Your task to perform on an android device: Play the last video I watched on Youtube Image 0: 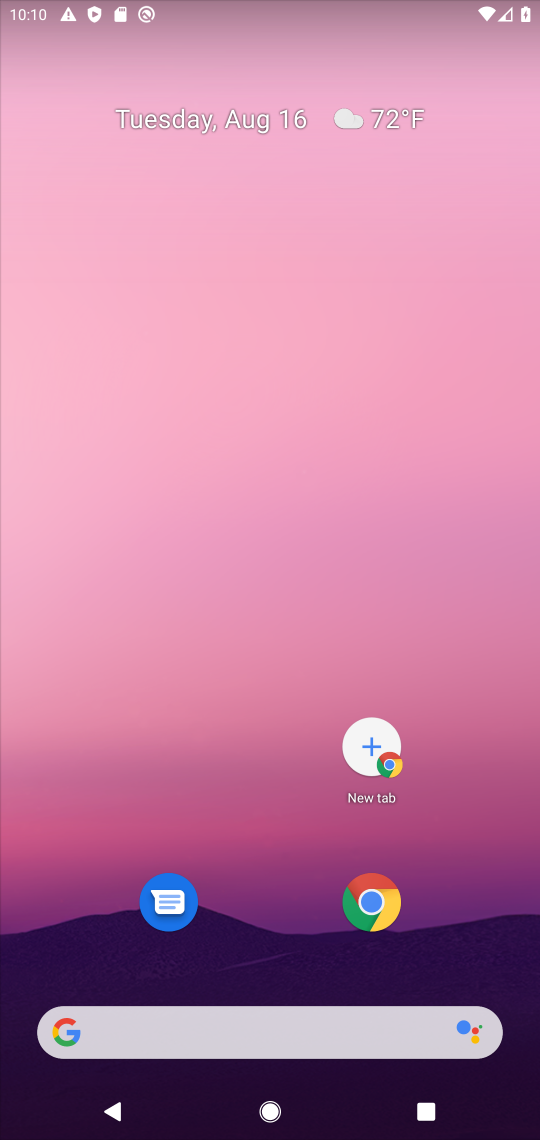
Step 0: drag from (263, 966) to (308, 373)
Your task to perform on an android device: Play the last video I watched on Youtube Image 1: 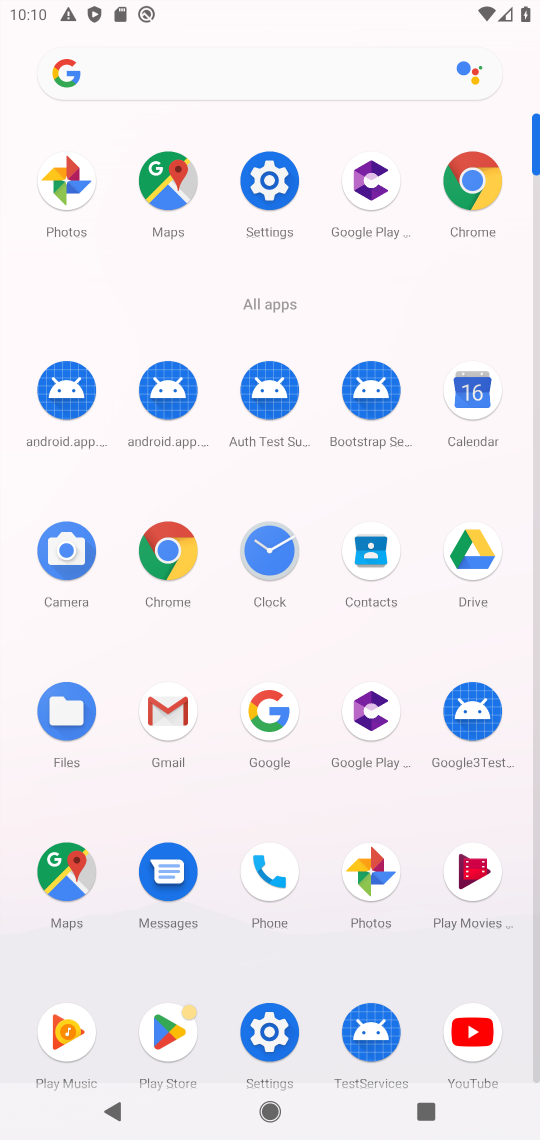
Step 1: drag from (408, 1040) to (466, 417)
Your task to perform on an android device: Play the last video I watched on Youtube Image 2: 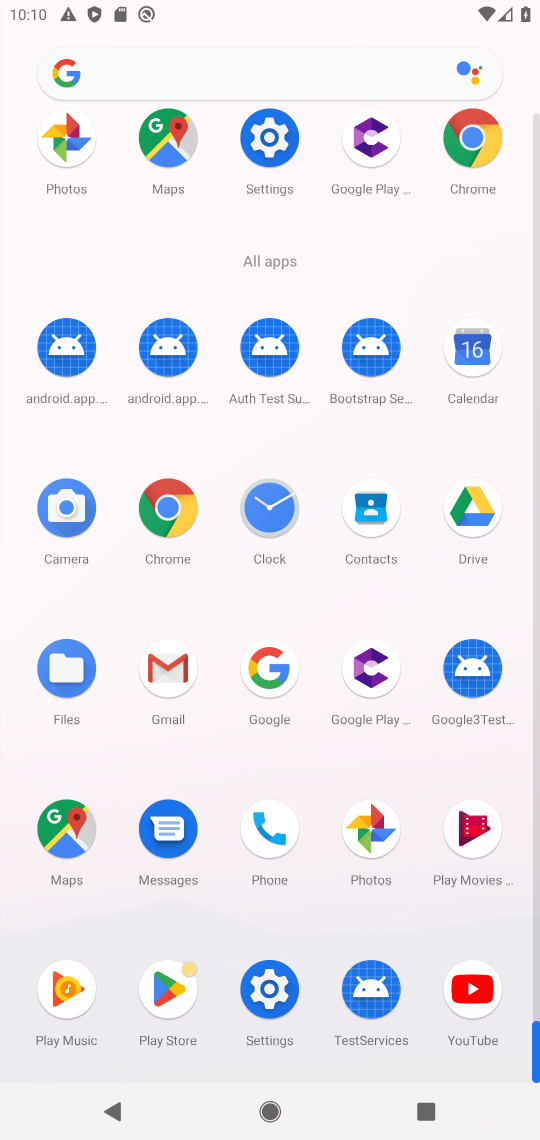
Step 2: click (469, 996)
Your task to perform on an android device: Play the last video I watched on Youtube Image 3: 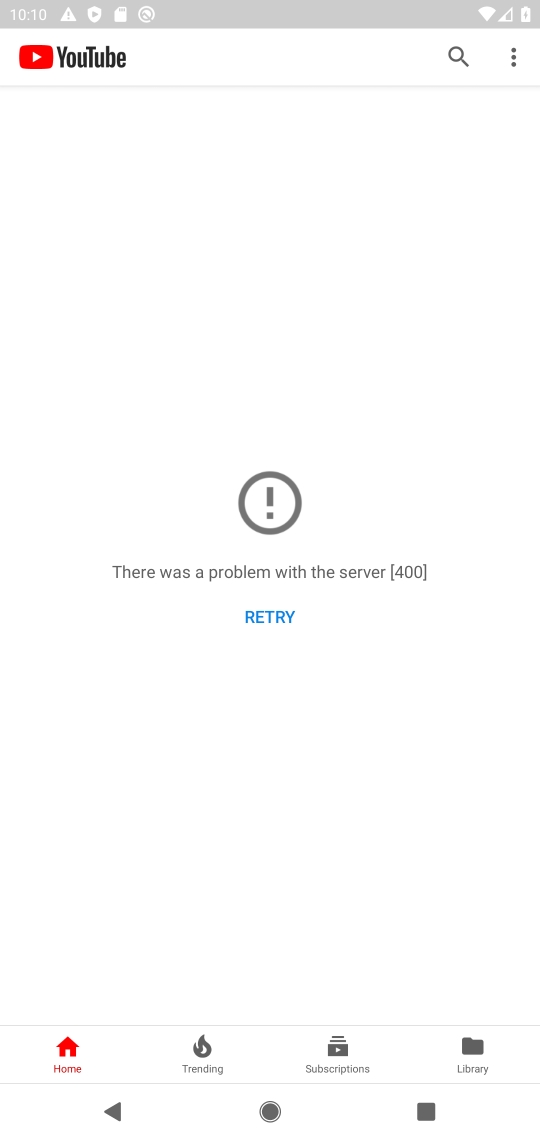
Step 3: click (277, 609)
Your task to perform on an android device: Play the last video I watched on Youtube Image 4: 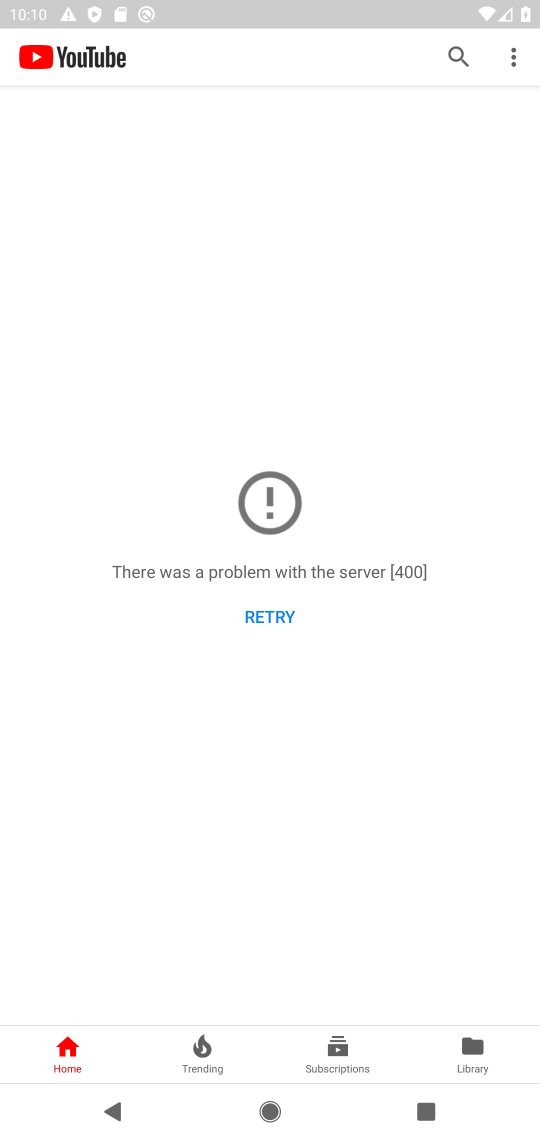
Step 4: click (475, 1061)
Your task to perform on an android device: Play the last video I watched on Youtube Image 5: 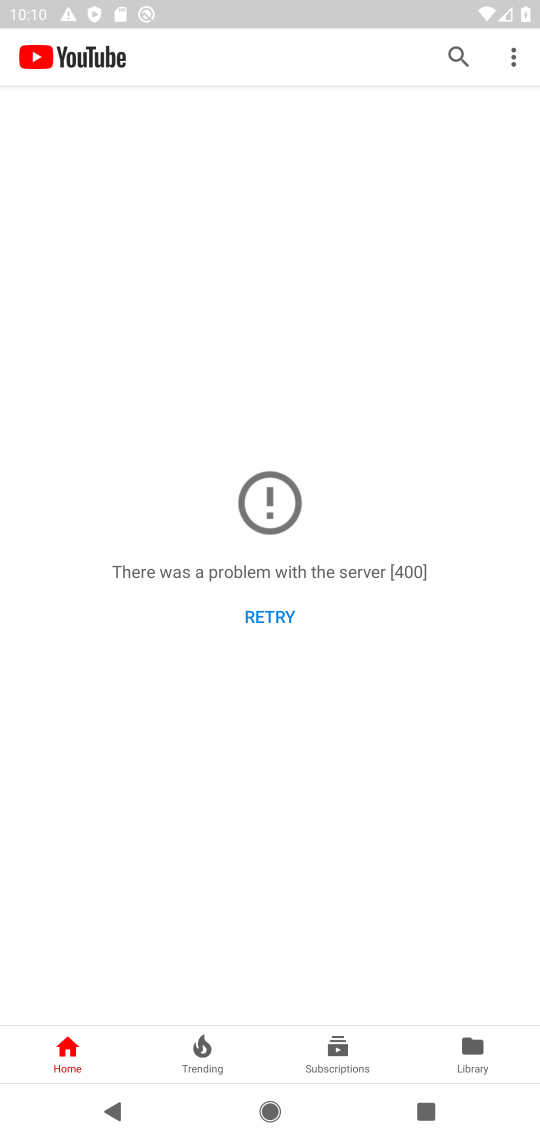
Step 5: click (475, 1049)
Your task to perform on an android device: Play the last video I watched on Youtube Image 6: 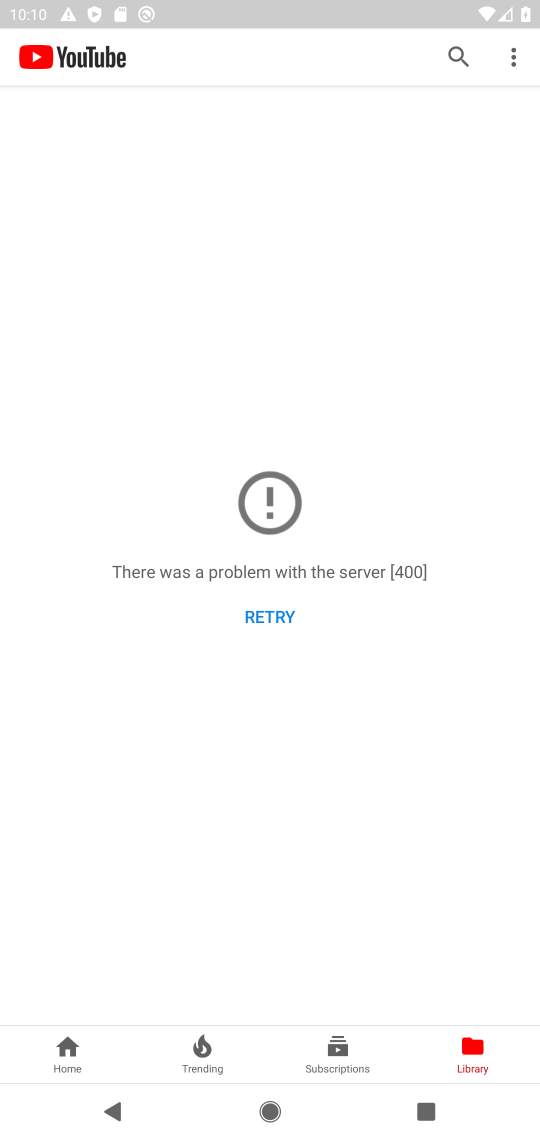
Step 6: task complete